Your task to perform on an android device: turn on wifi Image 0: 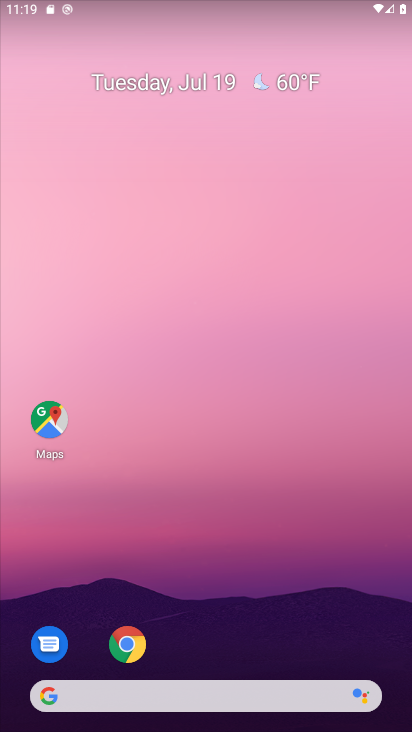
Step 0: drag from (218, 665) to (163, 170)
Your task to perform on an android device: turn on wifi Image 1: 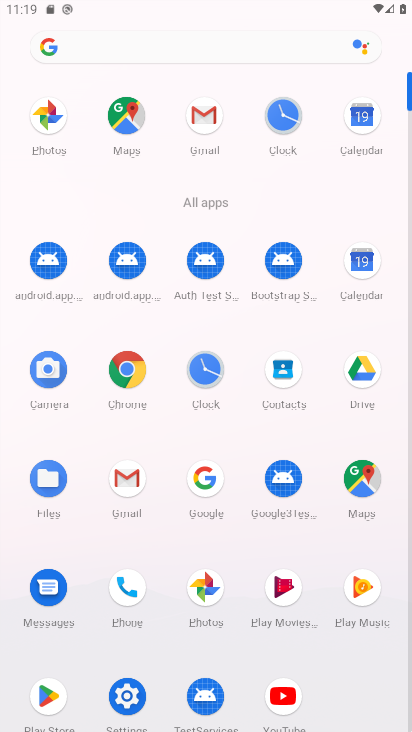
Step 1: drag from (131, 675) to (249, 618)
Your task to perform on an android device: turn on wifi Image 2: 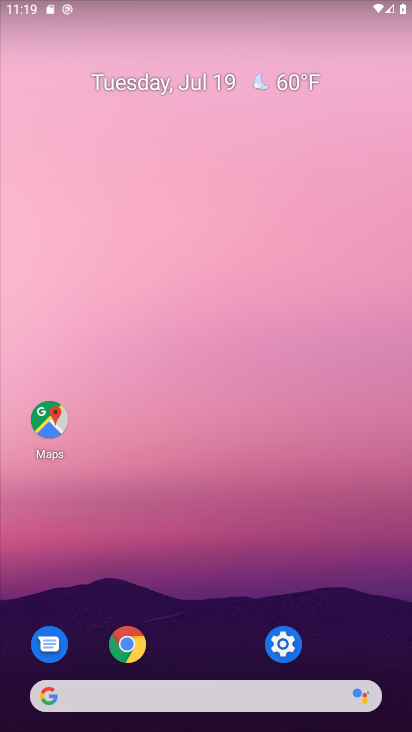
Step 2: click (287, 638)
Your task to perform on an android device: turn on wifi Image 3: 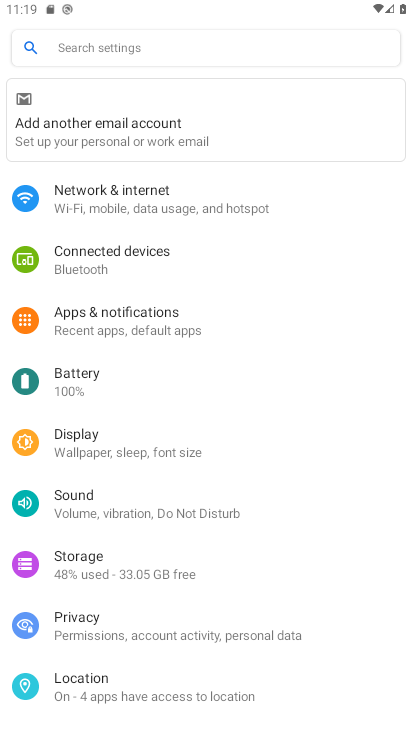
Step 3: click (136, 204)
Your task to perform on an android device: turn on wifi Image 4: 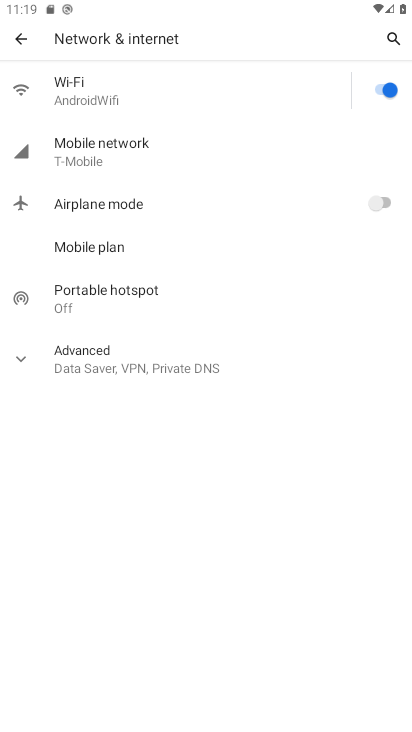
Step 4: click (123, 90)
Your task to perform on an android device: turn on wifi Image 5: 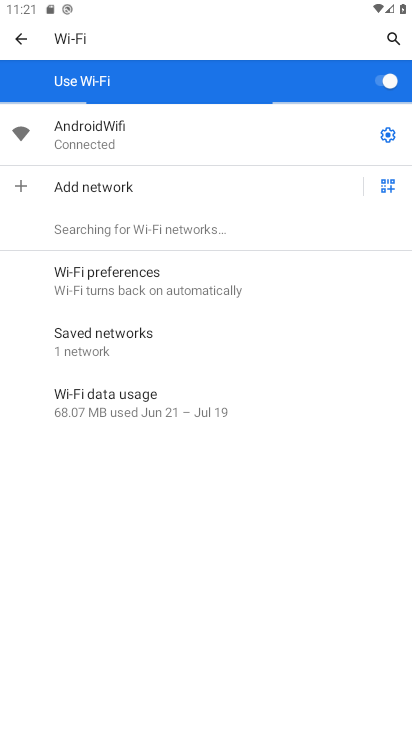
Step 5: task complete